Your task to perform on an android device: toggle improve location accuracy Image 0: 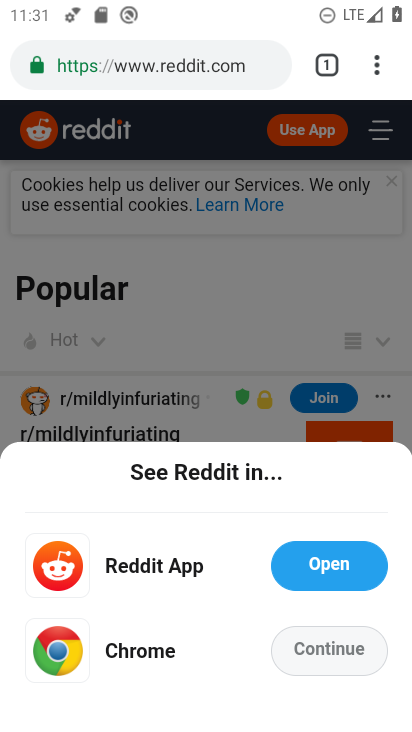
Step 0: press home button
Your task to perform on an android device: toggle improve location accuracy Image 1: 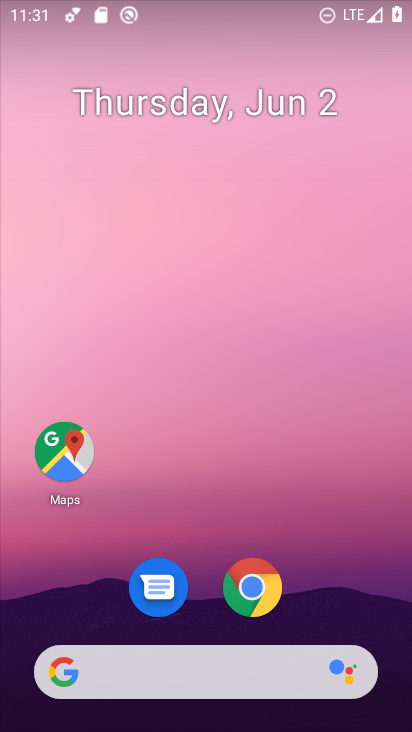
Step 1: drag from (337, 597) to (230, 178)
Your task to perform on an android device: toggle improve location accuracy Image 2: 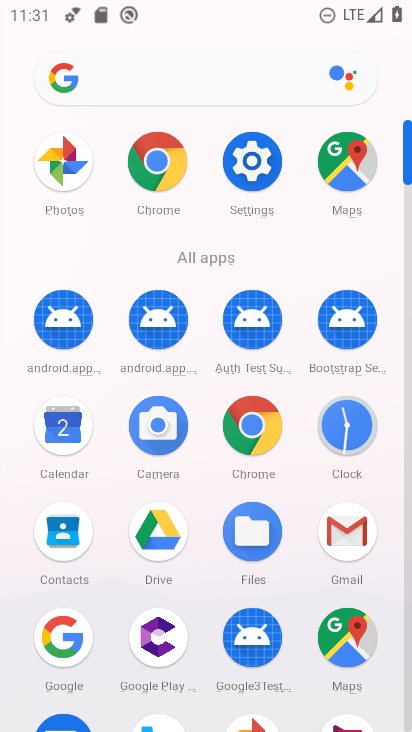
Step 2: click (255, 171)
Your task to perform on an android device: toggle improve location accuracy Image 3: 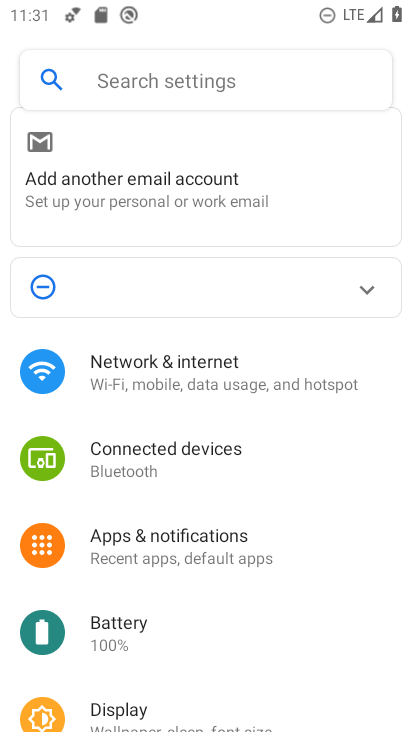
Step 3: drag from (215, 676) to (194, 200)
Your task to perform on an android device: toggle improve location accuracy Image 4: 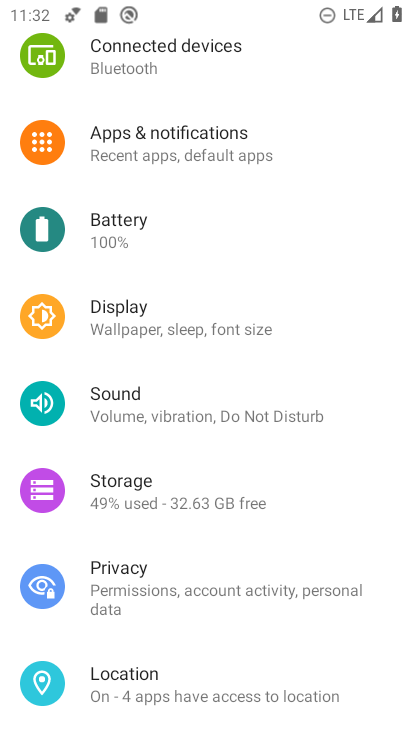
Step 4: click (207, 703)
Your task to perform on an android device: toggle improve location accuracy Image 5: 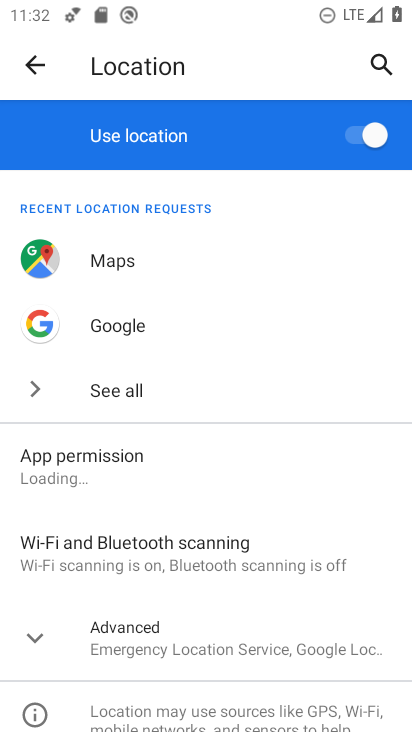
Step 5: click (272, 641)
Your task to perform on an android device: toggle improve location accuracy Image 6: 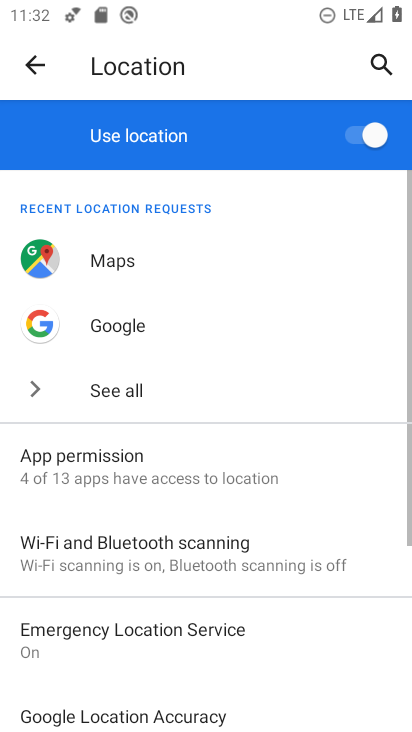
Step 6: drag from (187, 610) to (150, 319)
Your task to perform on an android device: toggle improve location accuracy Image 7: 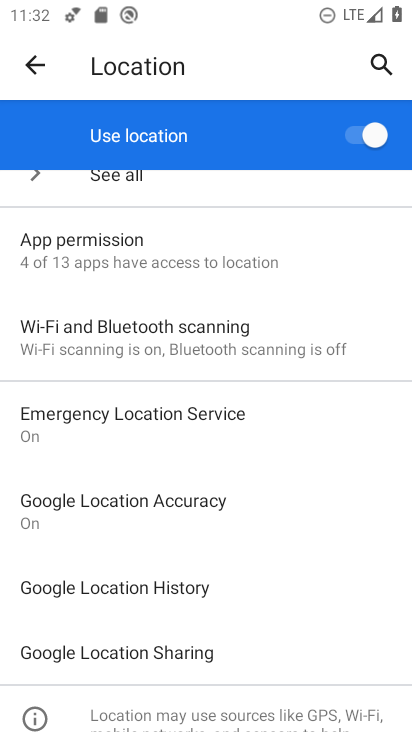
Step 7: click (162, 502)
Your task to perform on an android device: toggle improve location accuracy Image 8: 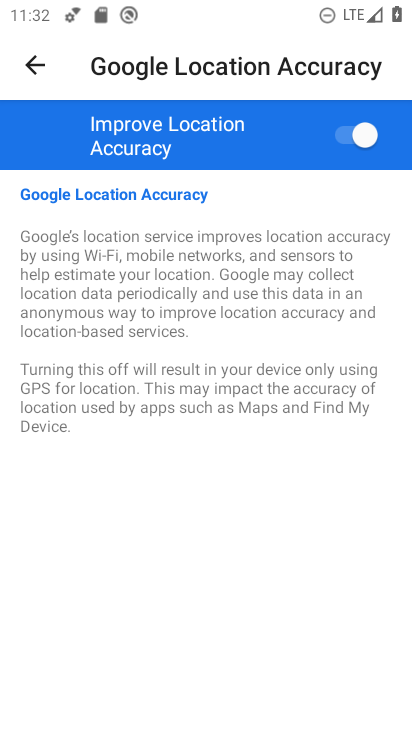
Step 8: click (349, 135)
Your task to perform on an android device: toggle improve location accuracy Image 9: 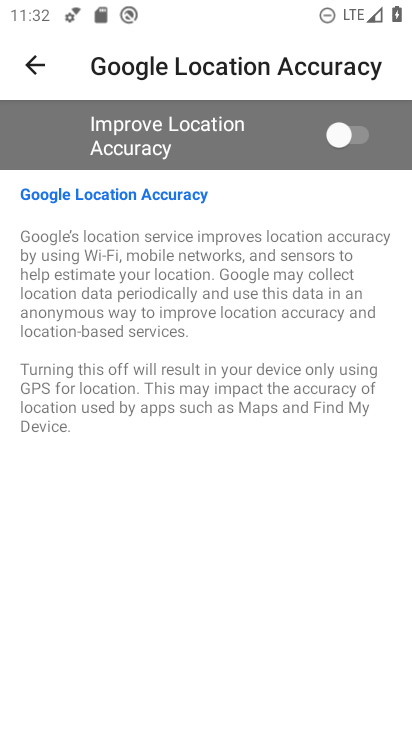
Step 9: task complete